Your task to perform on an android device: Open settings on Google Maps Image 0: 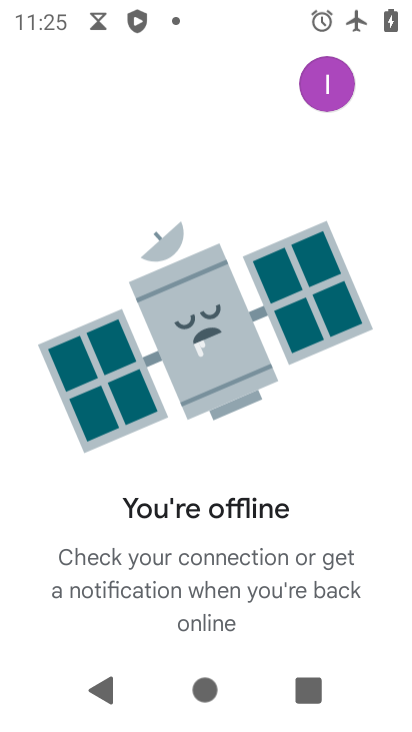
Step 0: press home button
Your task to perform on an android device: Open settings on Google Maps Image 1: 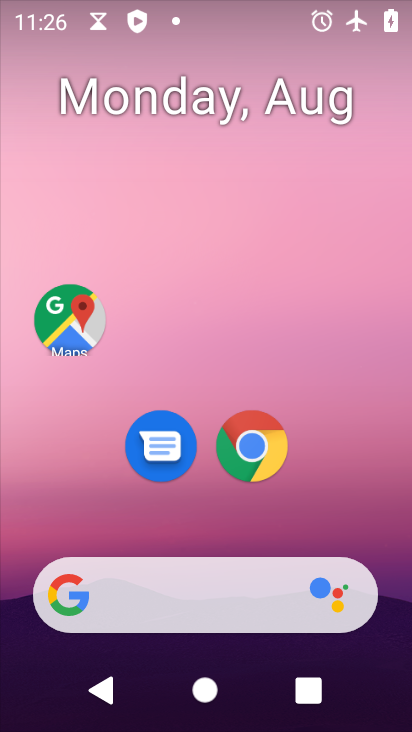
Step 1: drag from (189, 523) to (193, 18)
Your task to perform on an android device: Open settings on Google Maps Image 2: 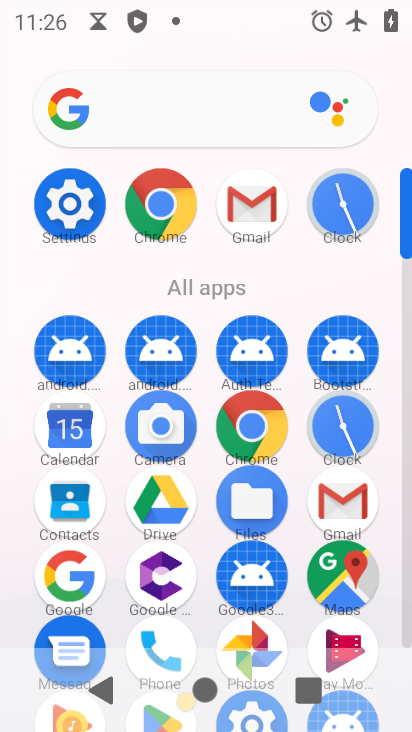
Step 2: click (322, 573)
Your task to perform on an android device: Open settings on Google Maps Image 3: 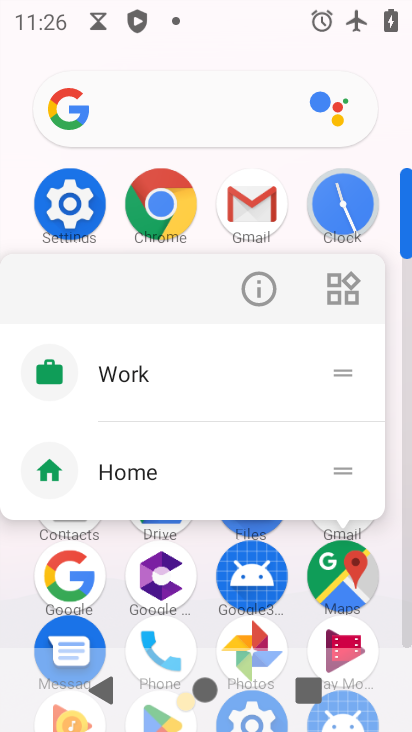
Step 3: click (360, 589)
Your task to perform on an android device: Open settings on Google Maps Image 4: 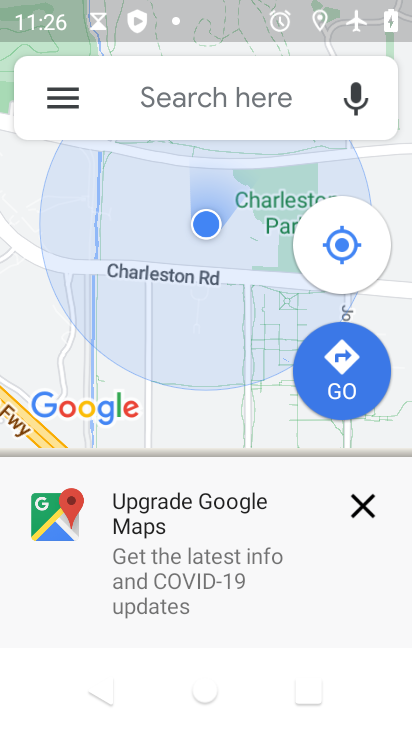
Step 4: click (57, 95)
Your task to perform on an android device: Open settings on Google Maps Image 5: 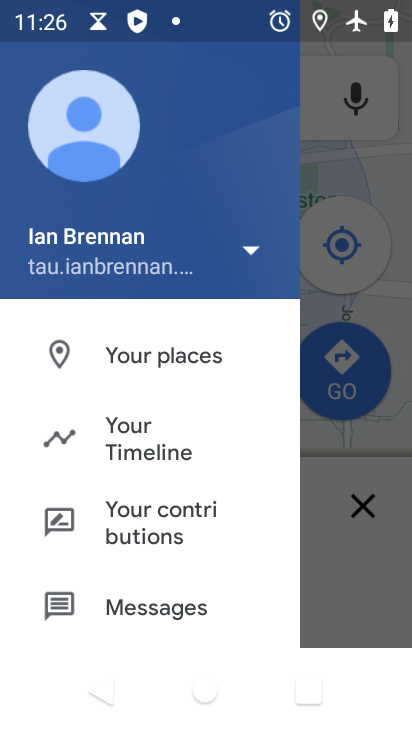
Step 5: drag from (149, 536) to (187, 240)
Your task to perform on an android device: Open settings on Google Maps Image 6: 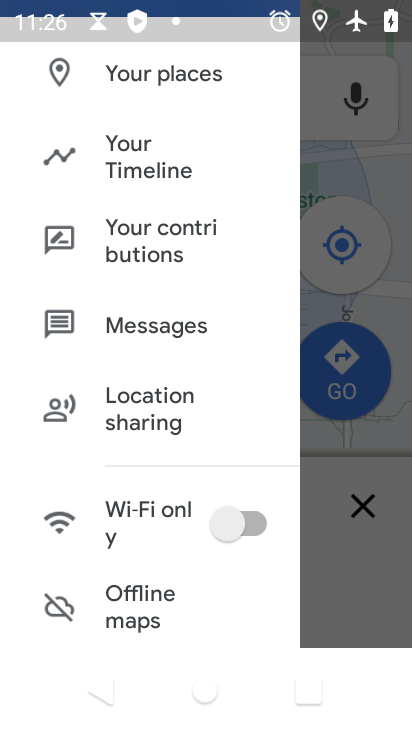
Step 6: drag from (164, 571) to (168, 194)
Your task to perform on an android device: Open settings on Google Maps Image 7: 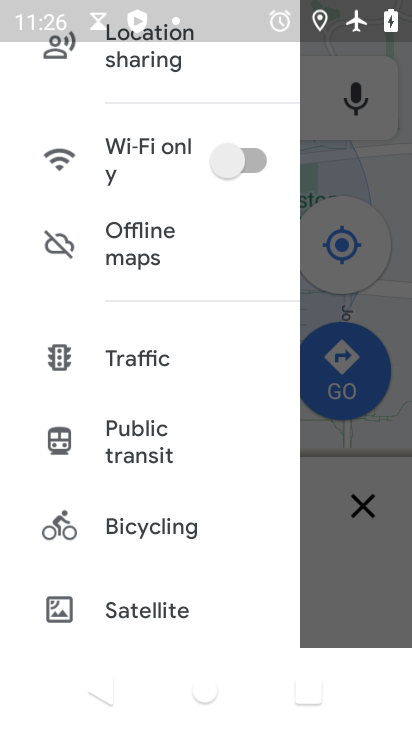
Step 7: drag from (160, 583) to (188, 127)
Your task to perform on an android device: Open settings on Google Maps Image 8: 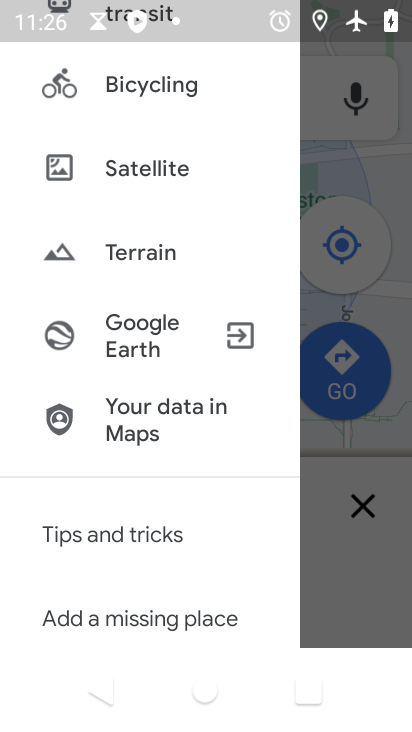
Step 8: drag from (125, 570) to (130, 270)
Your task to perform on an android device: Open settings on Google Maps Image 9: 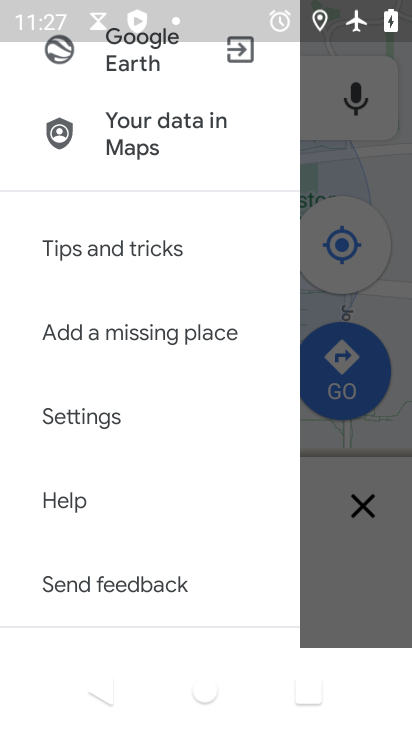
Step 9: click (89, 423)
Your task to perform on an android device: Open settings on Google Maps Image 10: 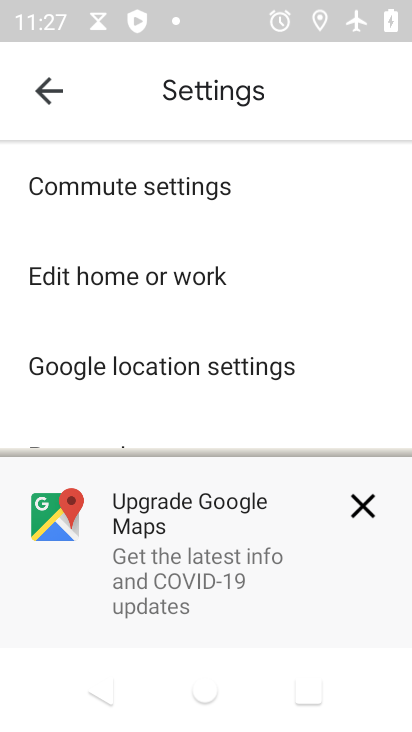
Step 10: click (365, 498)
Your task to perform on an android device: Open settings on Google Maps Image 11: 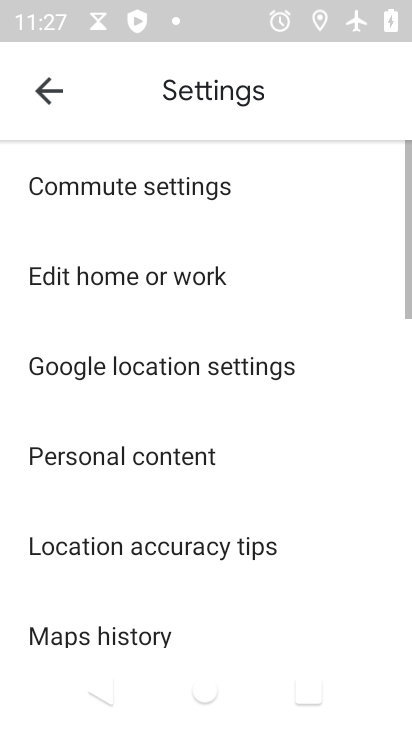
Step 11: task complete